Your task to perform on an android device: delete browsing data in the chrome app Image 0: 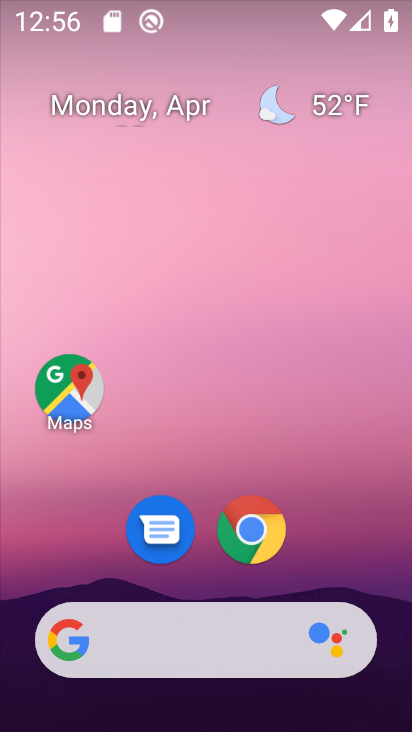
Step 0: click (255, 528)
Your task to perform on an android device: delete browsing data in the chrome app Image 1: 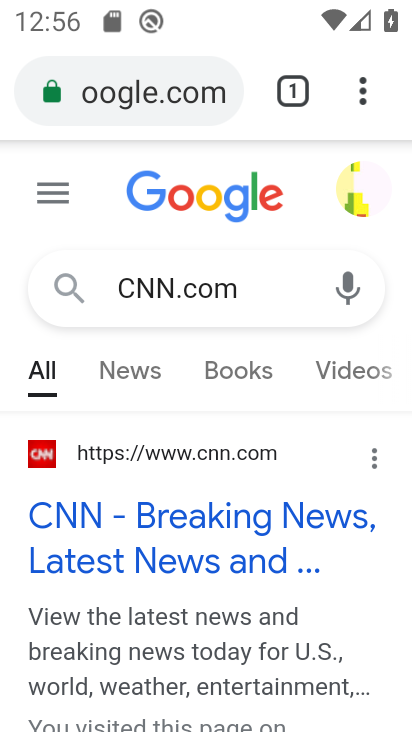
Step 1: click (358, 77)
Your task to perform on an android device: delete browsing data in the chrome app Image 2: 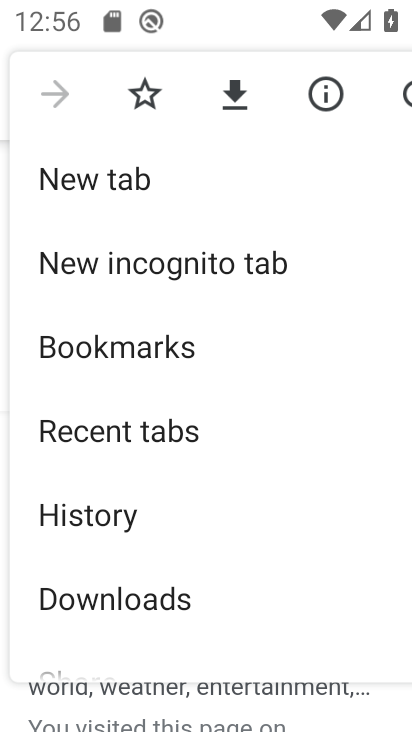
Step 2: click (75, 594)
Your task to perform on an android device: delete browsing data in the chrome app Image 3: 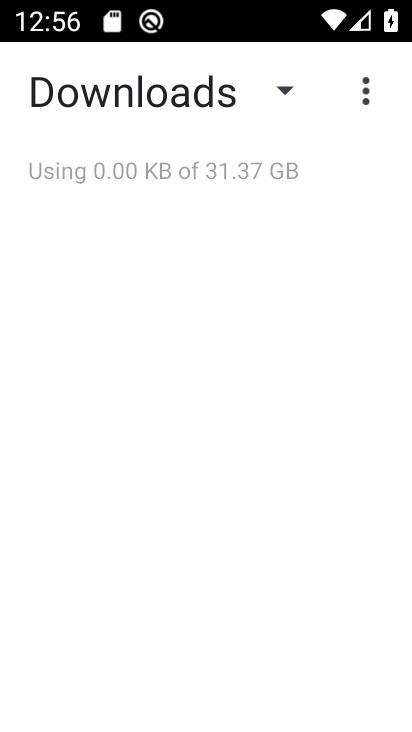
Step 3: press back button
Your task to perform on an android device: delete browsing data in the chrome app Image 4: 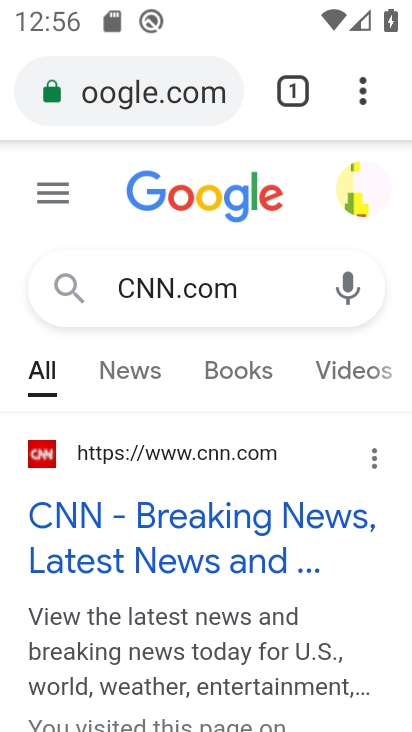
Step 4: click (358, 85)
Your task to perform on an android device: delete browsing data in the chrome app Image 5: 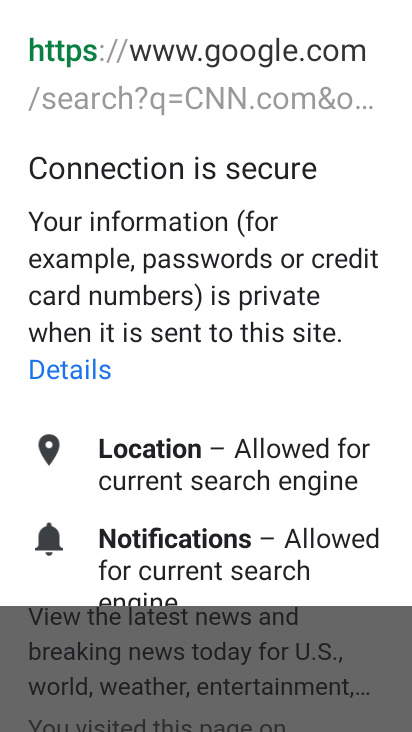
Step 5: press back button
Your task to perform on an android device: delete browsing data in the chrome app Image 6: 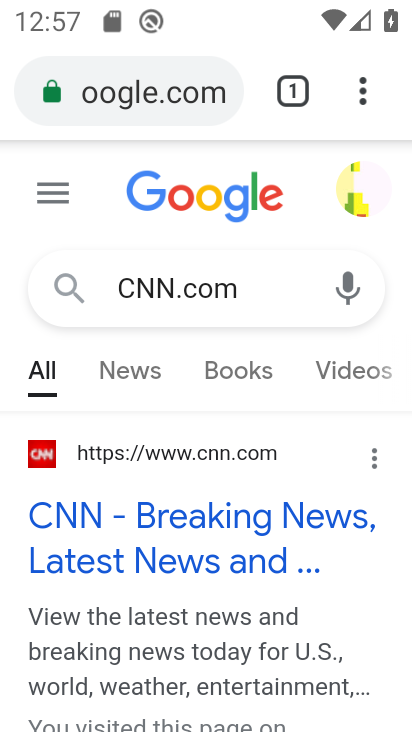
Step 6: click (361, 84)
Your task to perform on an android device: delete browsing data in the chrome app Image 7: 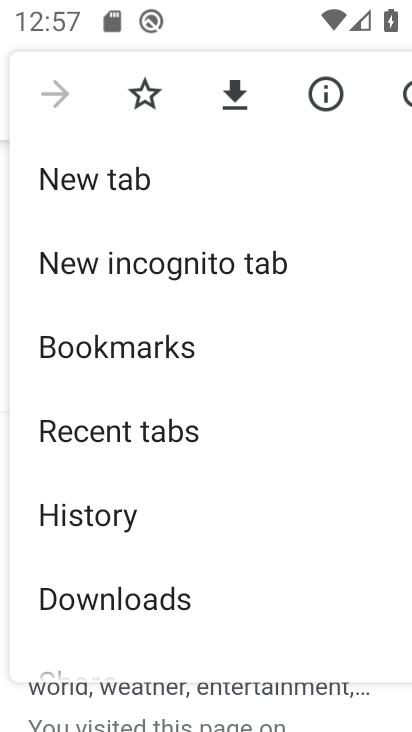
Step 7: click (84, 511)
Your task to perform on an android device: delete browsing data in the chrome app Image 8: 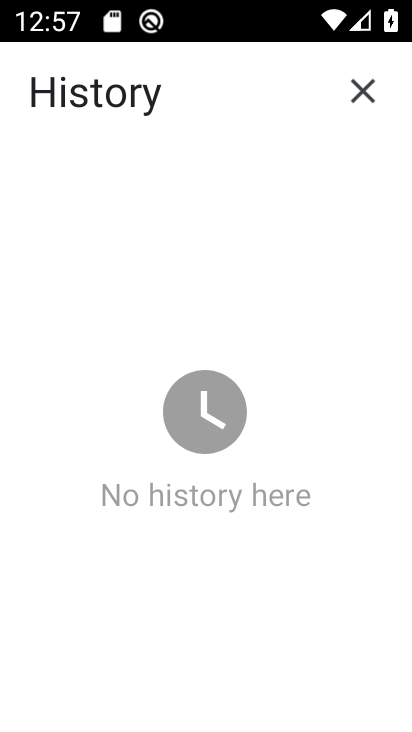
Step 8: task complete